Your task to perform on an android device: open chrome and create a bookmark for the current page Image 0: 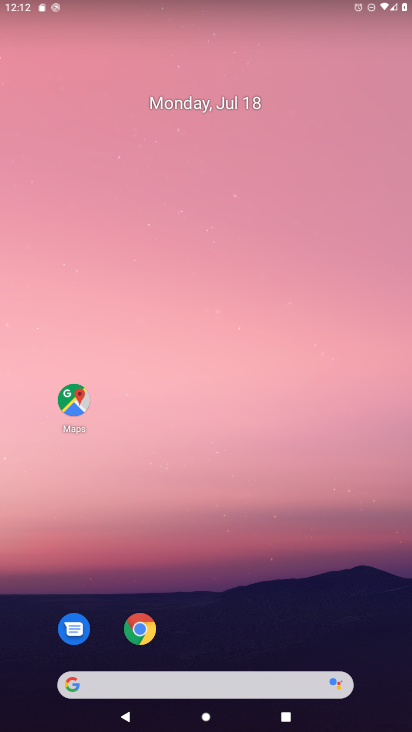
Step 0: click (139, 622)
Your task to perform on an android device: open chrome and create a bookmark for the current page Image 1: 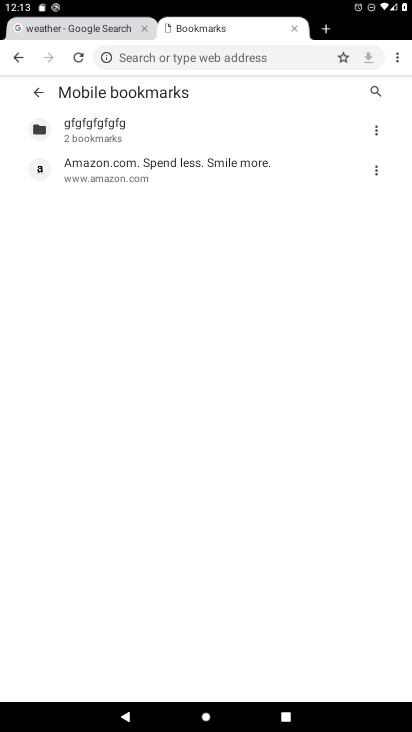
Step 1: click (345, 56)
Your task to perform on an android device: open chrome and create a bookmark for the current page Image 2: 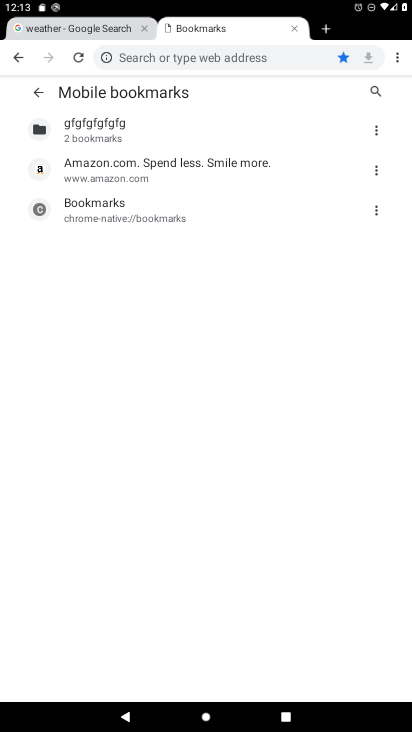
Step 2: task complete